Your task to perform on an android device: Toggle the flashlight Image 0: 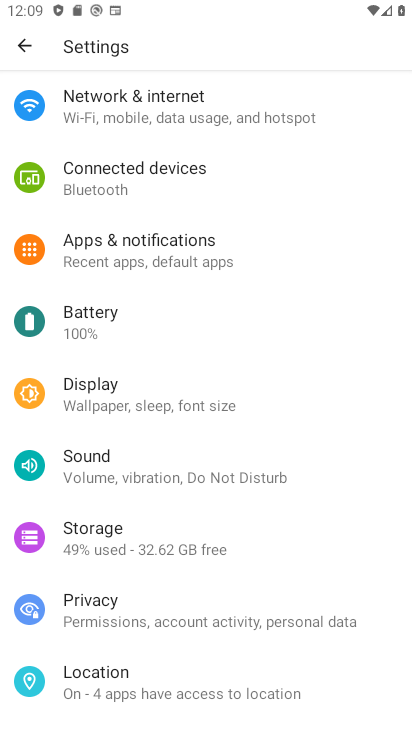
Step 0: press home button
Your task to perform on an android device: Toggle the flashlight Image 1: 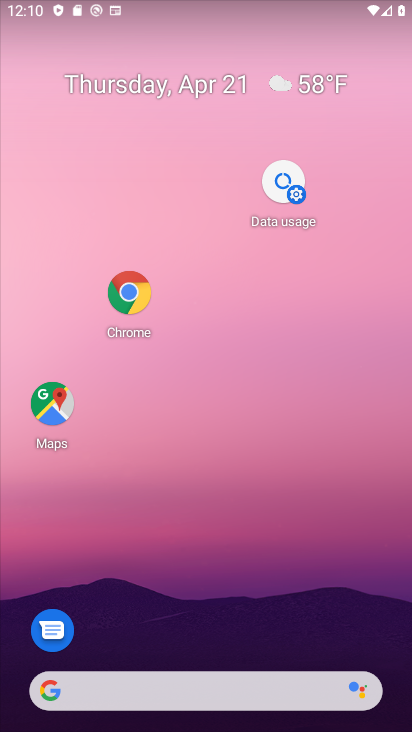
Step 1: drag from (169, 9) to (179, 368)
Your task to perform on an android device: Toggle the flashlight Image 2: 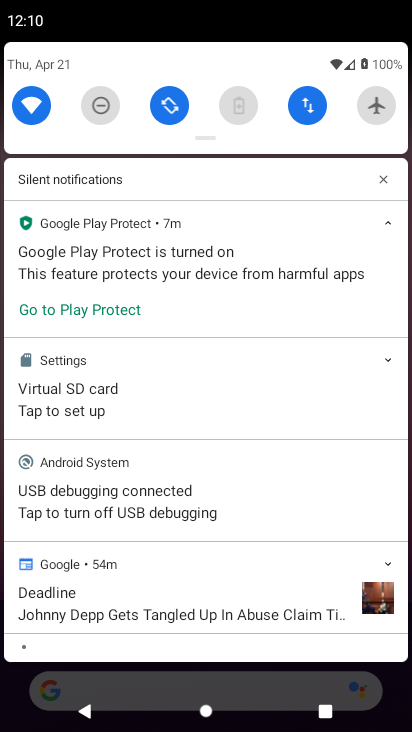
Step 2: drag from (175, 118) to (220, 437)
Your task to perform on an android device: Toggle the flashlight Image 3: 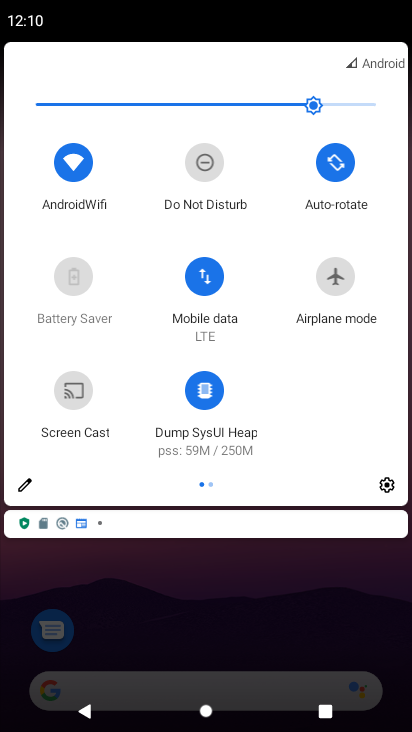
Step 3: drag from (336, 365) to (0, 495)
Your task to perform on an android device: Toggle the flashlight Image 4: 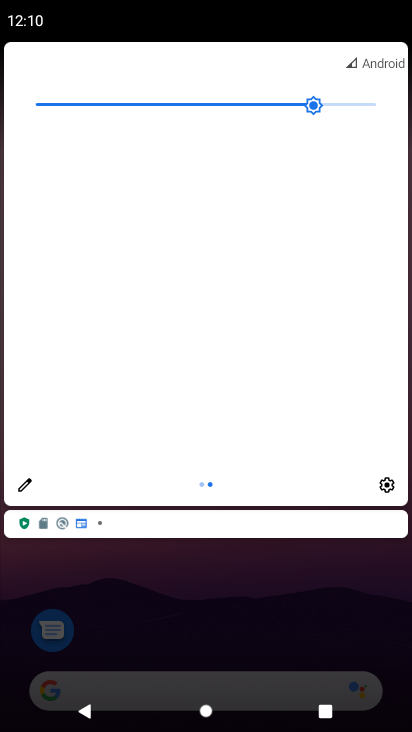
Step 4: click (26, 486)
Your task to perform on an android device: Toggle the flashlight Image 5: 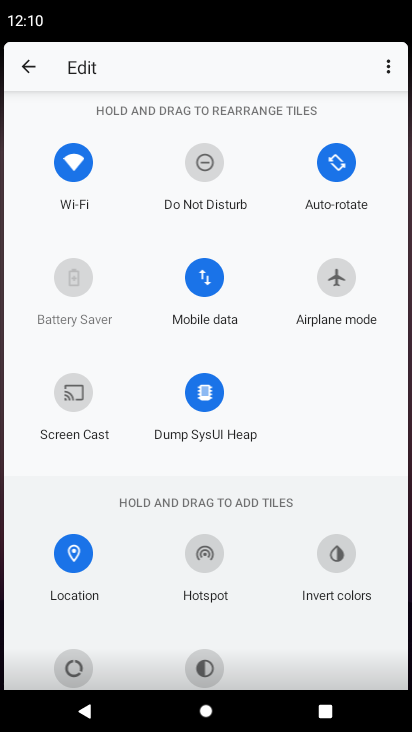
Step 5: task complete